Your task to perform on an android device: Search for Mexican restaurants on Maps Image 0: 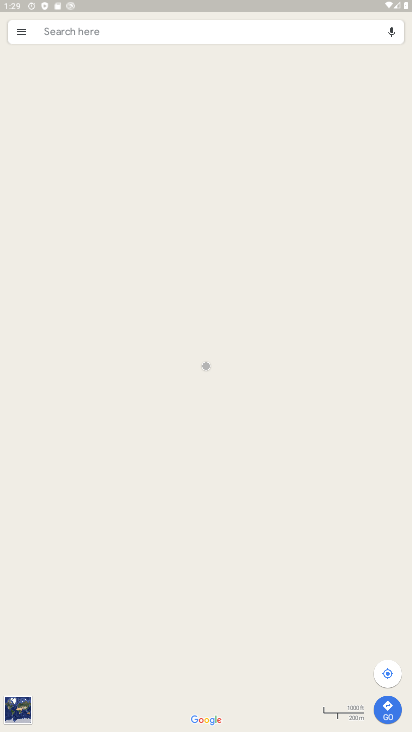
Step 0: press home button
Your task to perform on an android device: Search for Mexican restaurants on Maps Image 1: 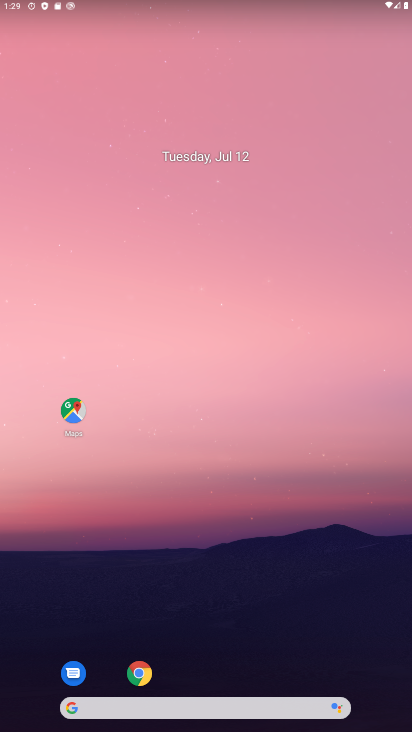
Step 1: drag from (308, 568) to (407, 50)
Your task to perform on an android device: Search for Mexican restaurants on Maps Image 2: 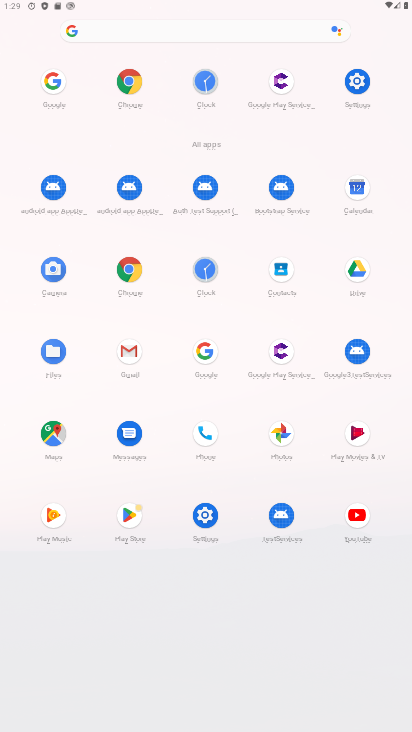
Step 2: click (54, 429)
Your task to perform on an android device: Search for Mexican restaurants on Maps Image 3: 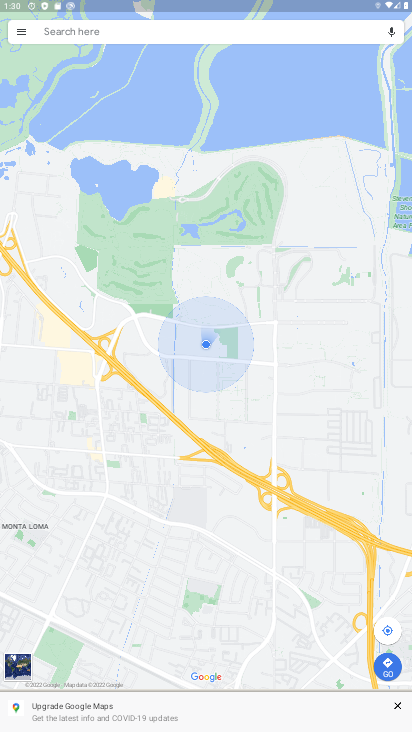
Step 3: click (59, 42)
Your task to perform on an android device: Search for Mexican restaurants on Maps Image 4: 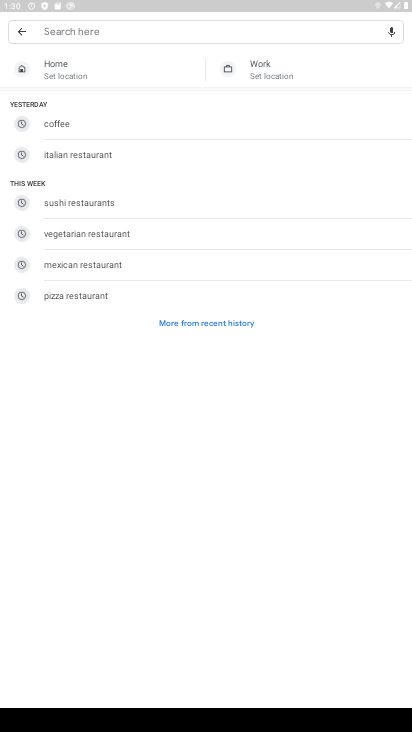
Step 4: click (142, 269)
Your task to perform on an android device: Search for Mexican restaurants on Maps Image 5: 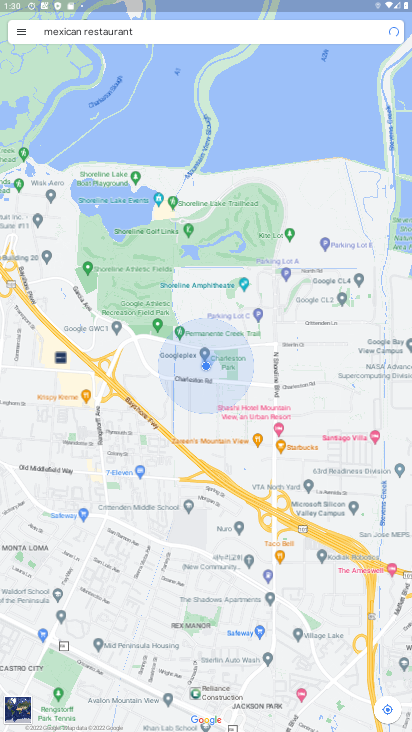
Step 5: task complete